Your task to perform on an android device: find snoozed emails in the gmail app Image 0: 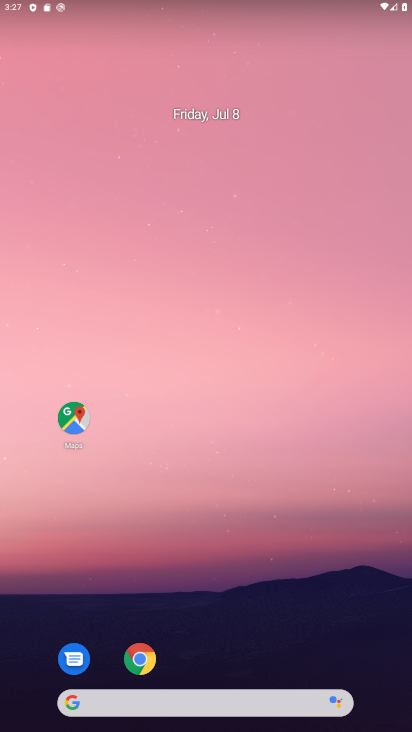
Step 0: drag from (235, 681) to (186, 210)
Your task to perform on an android device: find snoozed emails in the gmail app Image 1: 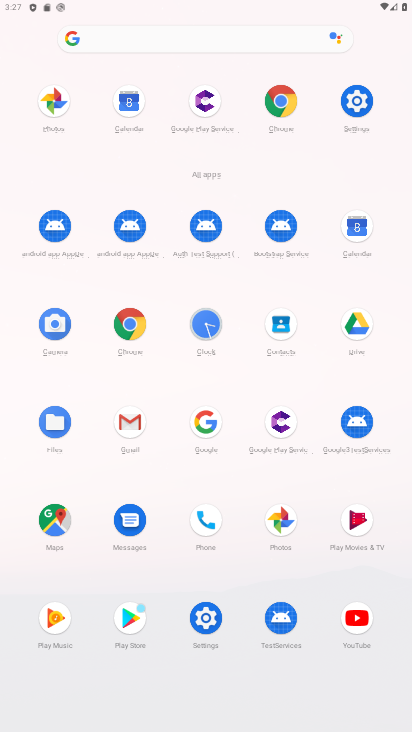
Step 1: click (129, 416)
Your task to perform on an android device: find snoozed emails in the gmail app Image 2: 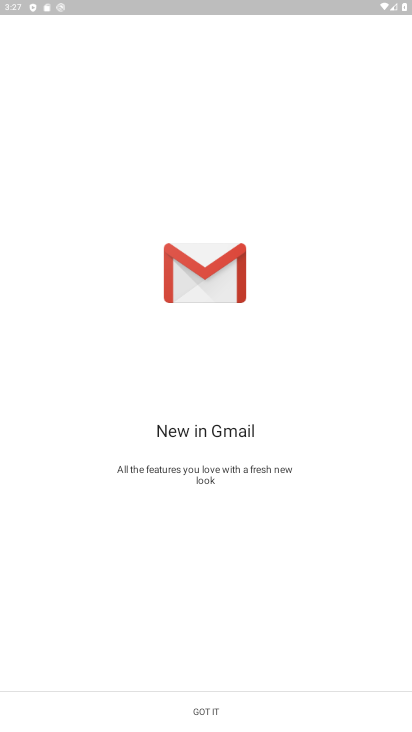
Step 2: click (202, 701)
Your task to perform on an android device: find snoozed emails in the gmail app Image 3: 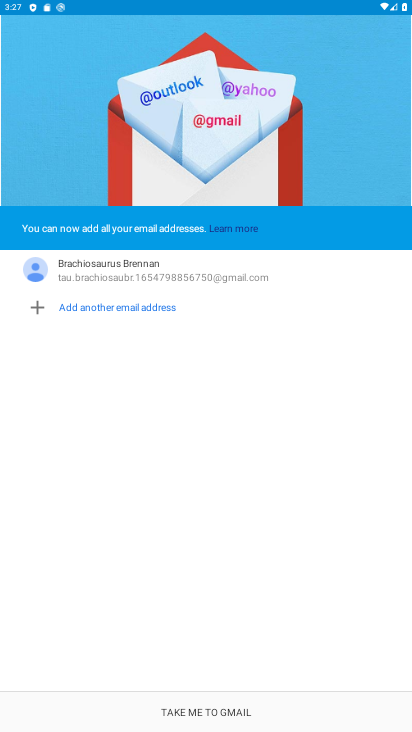
Step 3: click (202, 701)
Your task to perform on an android device: find snoozed emails in the gmail app Image 4: 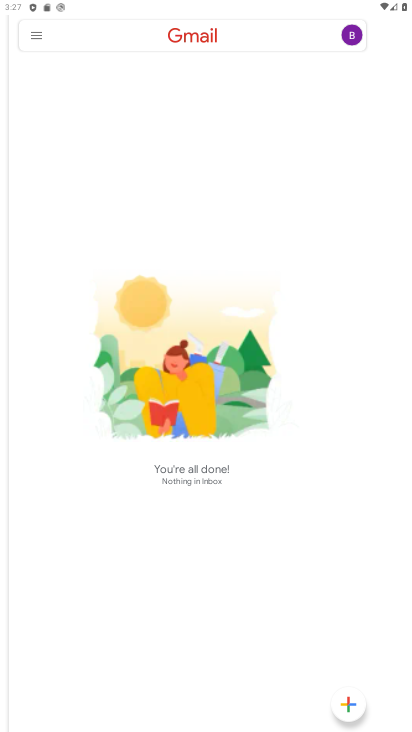
Step 4: click (36, 42)
Your task to perform on an android device: find snoozed emails in the gmail app Image 5: 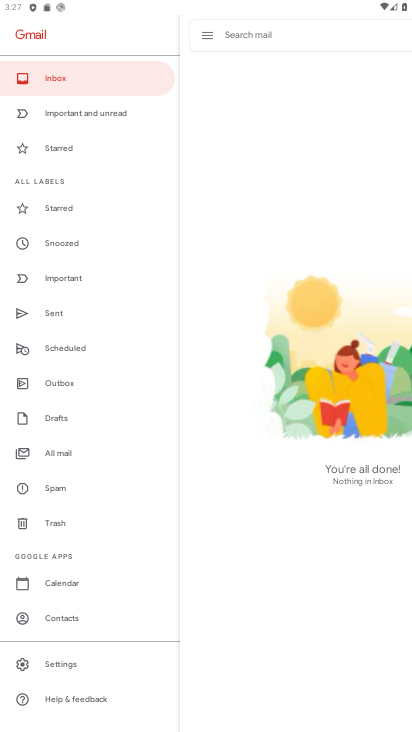
Step 5: click (74, 252)
Your task to perform on an android device: find snoozed emails in the gmail app Image 6: 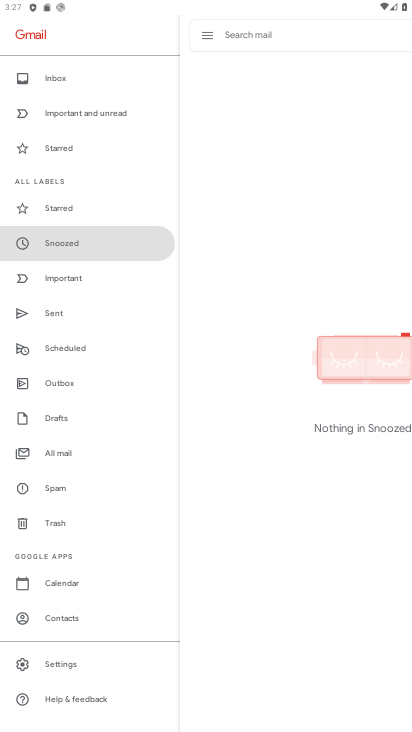
Step 6: task complete